Your task to perform on an android device: Go to sound settings Image 0: 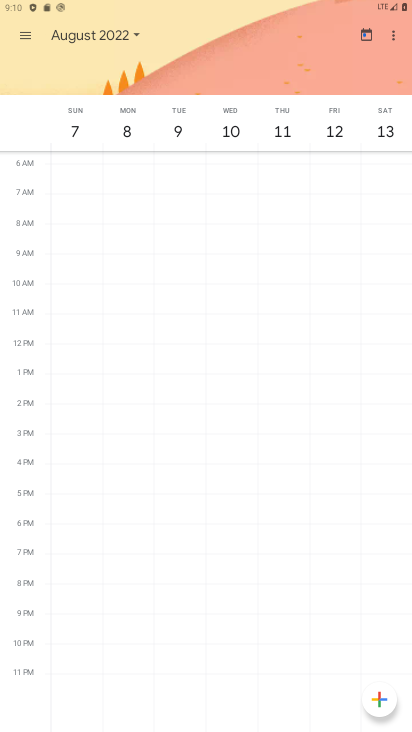
Step 0: press home button
Your task to perform on an android device: Go to sound settings Image 1: 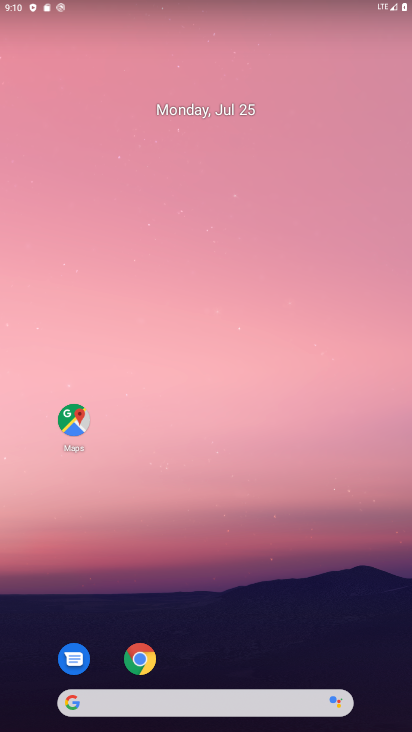
Step 1: drag from (226, 587) to (256, 21)
Your task to perform on an android device: Go to sound settings Image 2: 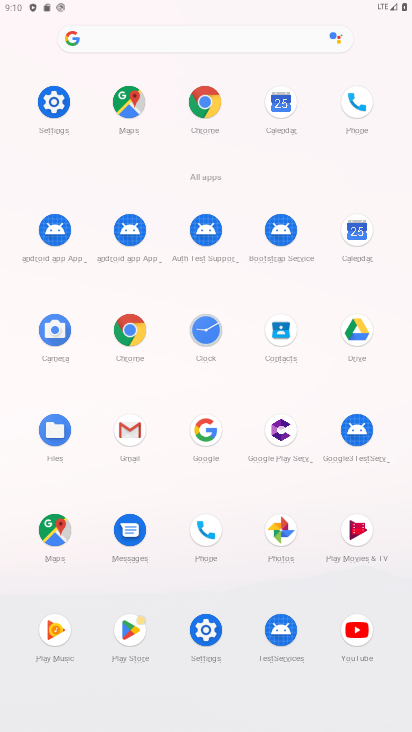
Step 2: click (214, 653)
Your task to perform on an android device: Go to sound settings Image 3: 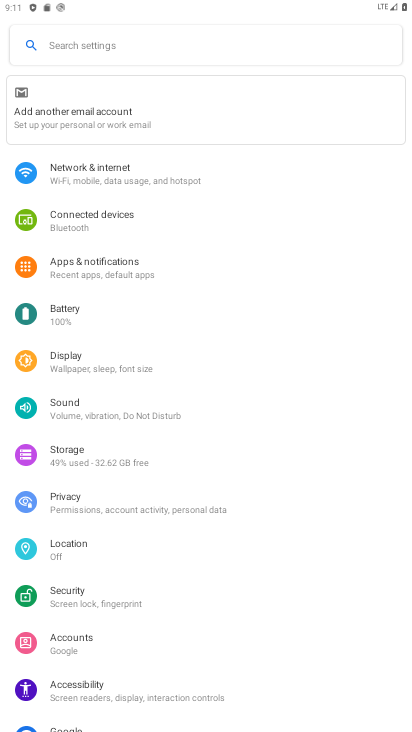
Step 3: click (77, 408)
Your task to perform on an android device: Go to sound settings Image 4: 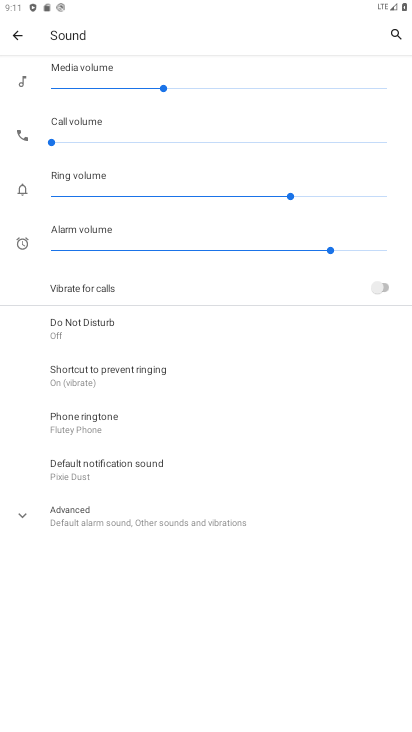
Step 4: task complete